Your task to perform on an android device: change keyboard looks Image 0: 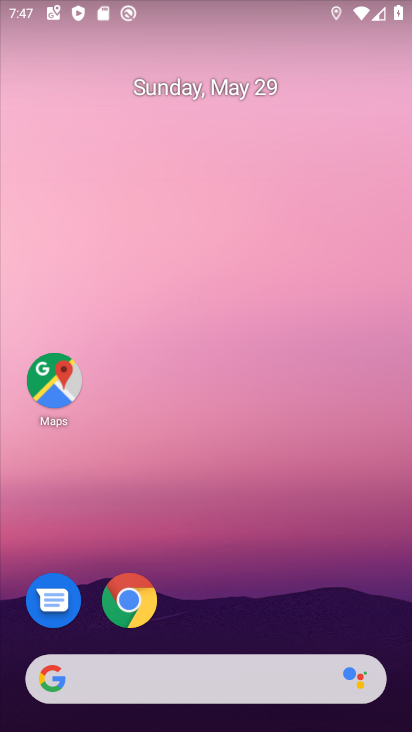
Step 0: drag from (236, 622) to (301, 21)
Your task to perform on an android device: change keyboard looks Image 1: 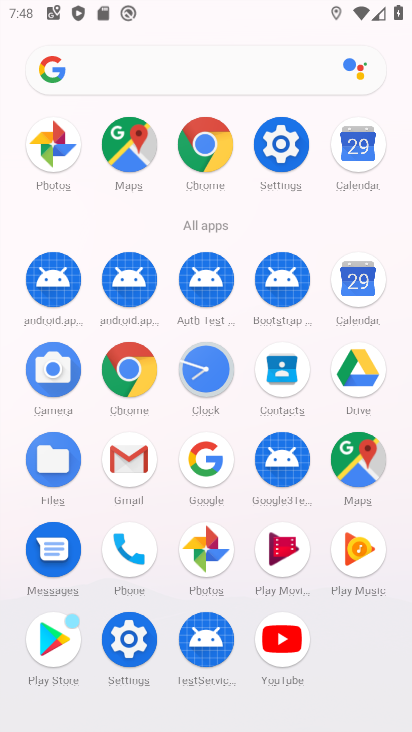
Step 1: click (286, 139)
Your task to perform on an android device: change keyboard looks Image 2: 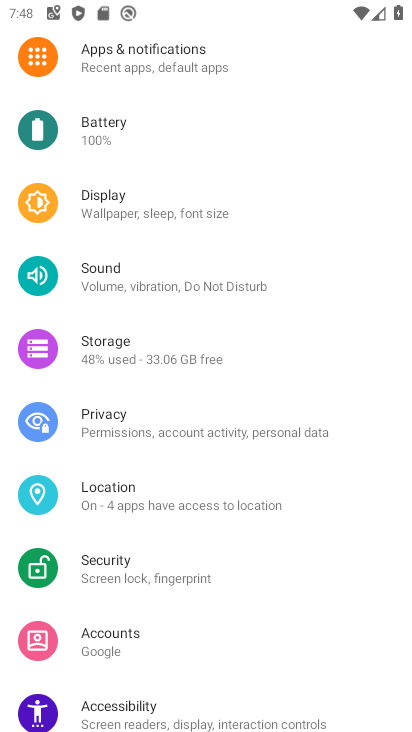
Step 2: drag from (204, 310) to (228, 141)
Your task to perform on an android device: change keyboard looks Image 3: 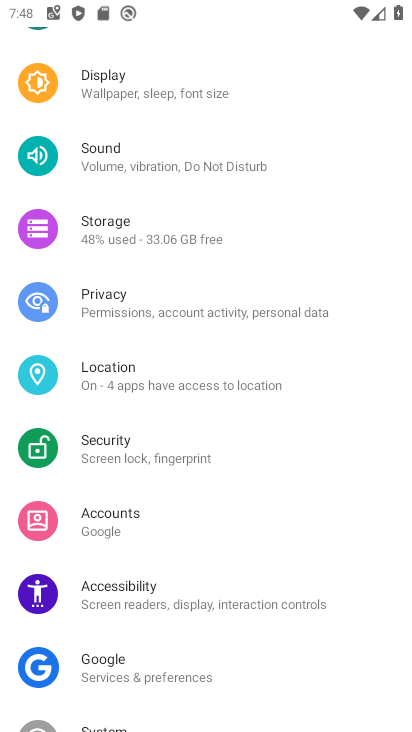
Step 3: drag from (164, 677) to (233, 135)
Your task to perform on an android device: change keyboard looks Image 4: 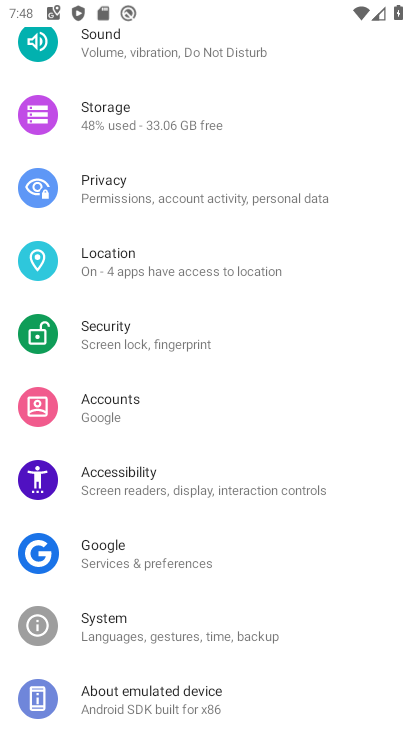
Step 4: click (114, 639)
Your task to perform on an android device: change keyboard looks Image 5: 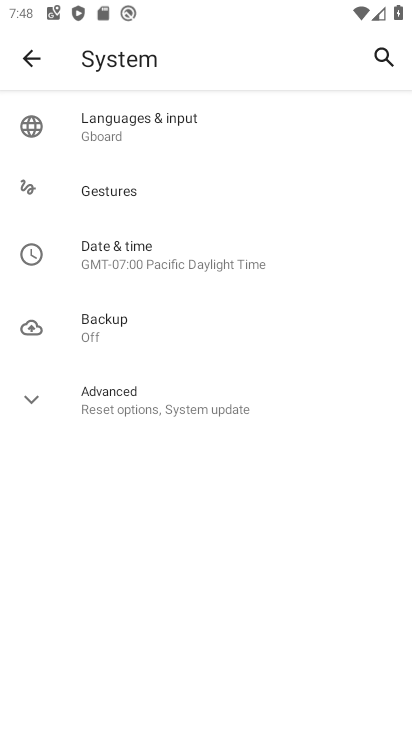
Step 5: click (222, 135)
Your task to perform on an android device: change keyboard looks Image 6: 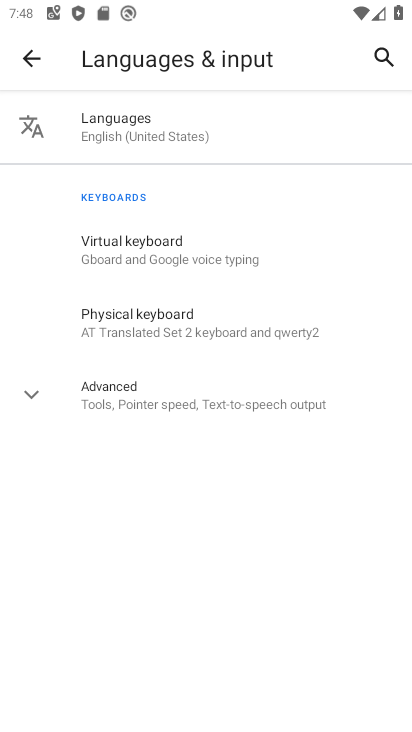
Step 6: click (124, 243)
Your task to perform on an android device: change keyboard looks Image 7: 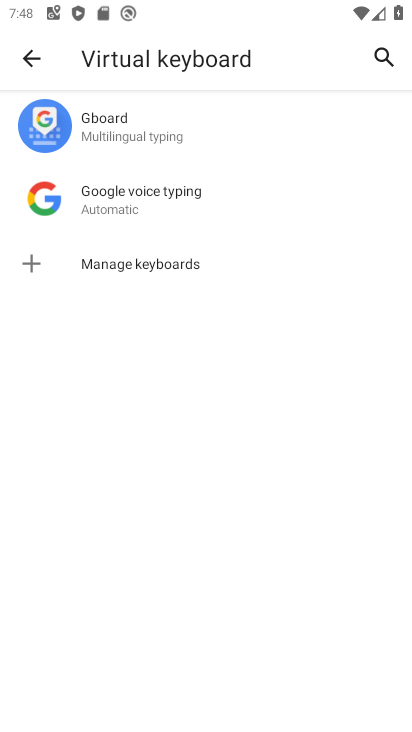
Step 7: click (176, 129)
Your task to perform on an android device: change keyboard looks Image 8: 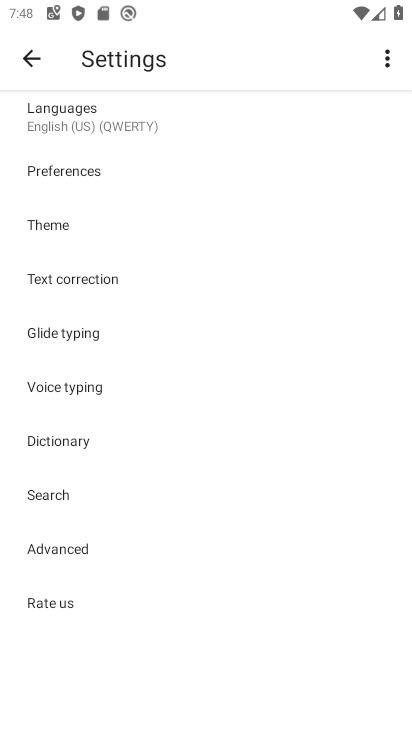
Step 8: click (57, 221)
Your task to perform on an android device: change keyboard looks Image 9: 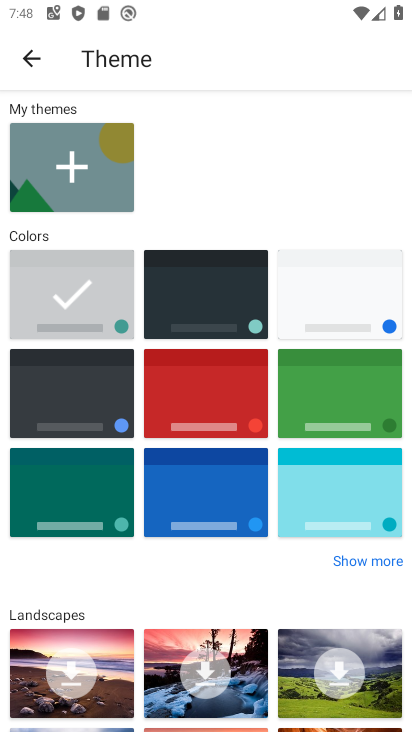
Step 9: click (347, 300)
Your task to perform on an android device: change keyboard looks Image 10: 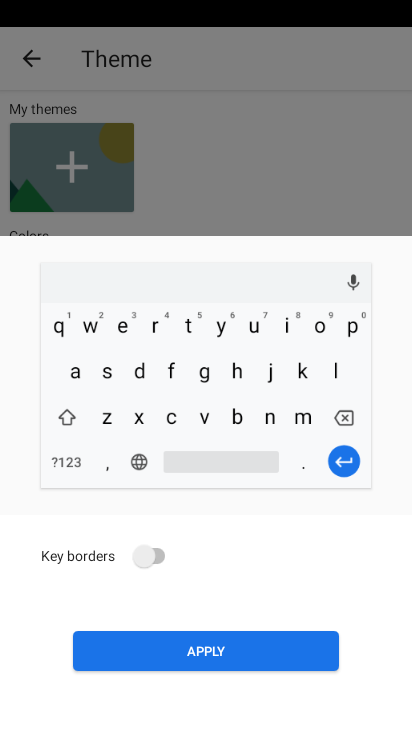
Step 10: click (192, 655)
Your task to perform on an android device: change keyboard looks Image 11: 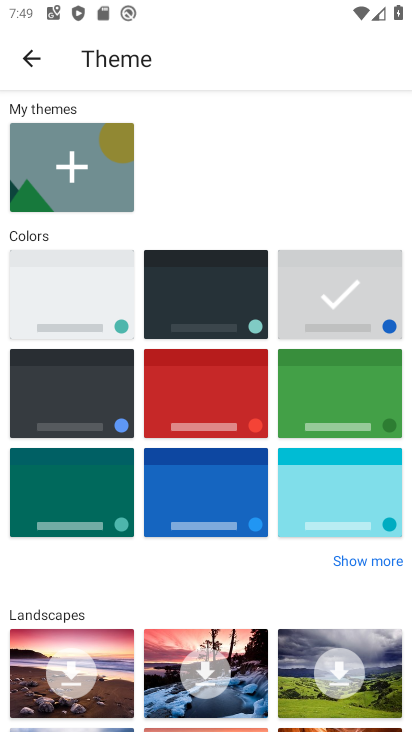
Step 11: task complete